Your task to perform on an android device: turn on sleep mode Image 0: 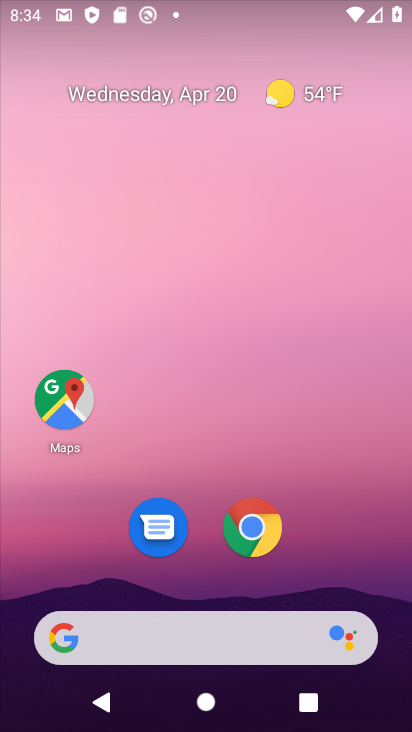
Step 0: drag from (301, 537) to (179, 9)
Your task to perform on an android device: turn on sleep mode Image 1: 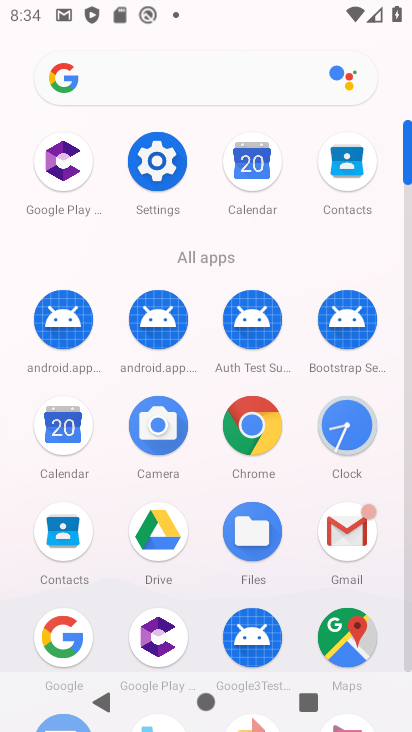
Step 1: click (149, 160)
Your task to perform on an android device: turn on sleep mode Image 2: 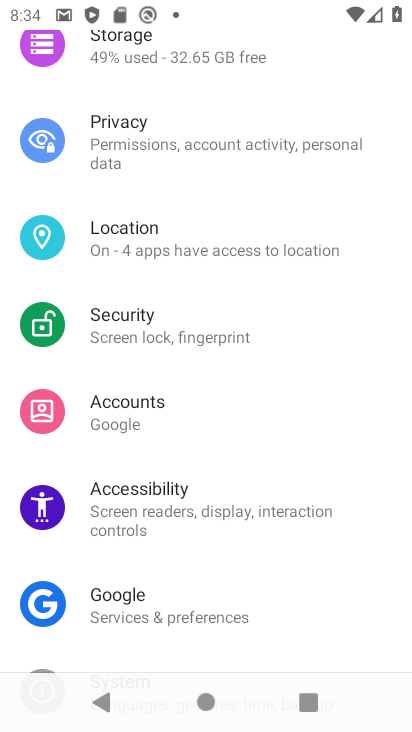
Step 2: drag from (267, 84) to (251, 577)
Your task to perform on an android device: turn on sleep mode Image 3: 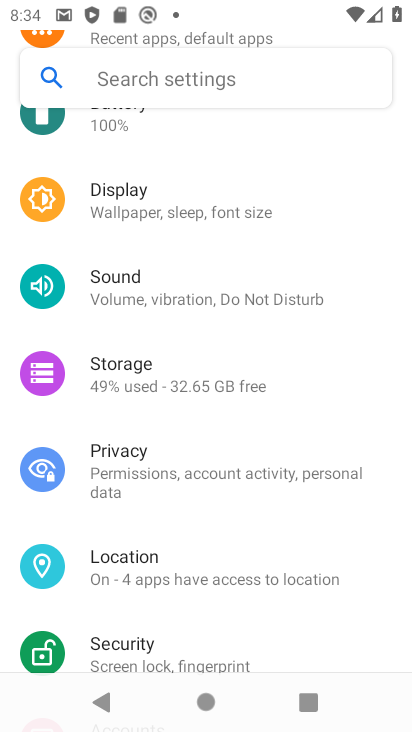
Step 3: click (240, 162)
Your task to perform on an android device: turn on sleep mode Image 4: 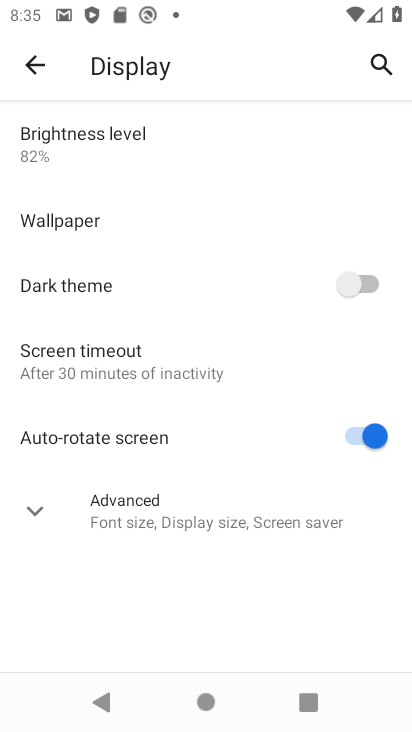
Step 4: task complete